Your task to perform on an android device: Add "energizer triple a" to the cart on newegg, then select checkout. Image 0: 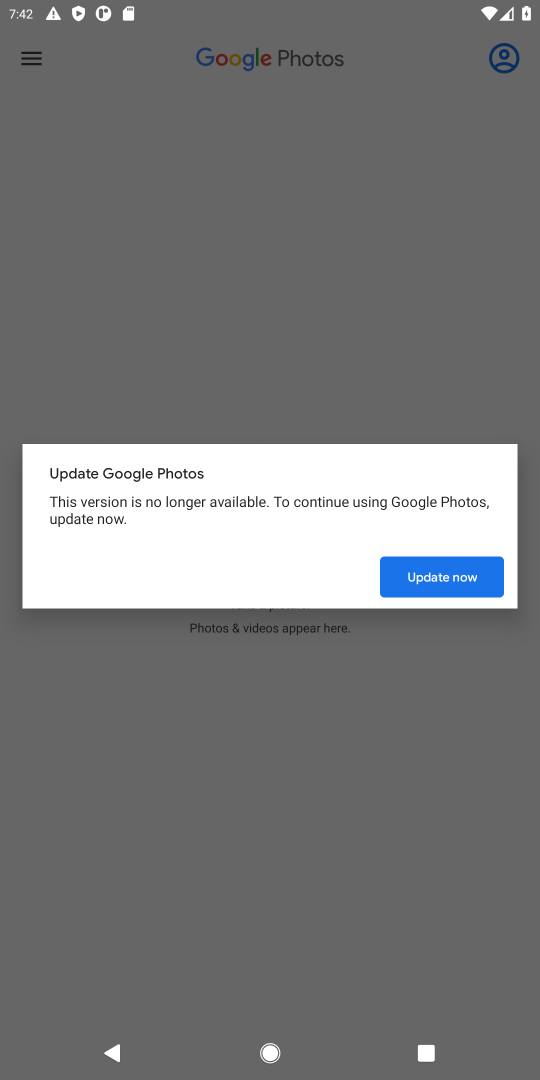
Step 0: press home button
Your task to perform on an android device: Add "energizer triple a" to the cart on newegg, then select checkout. Image 1: 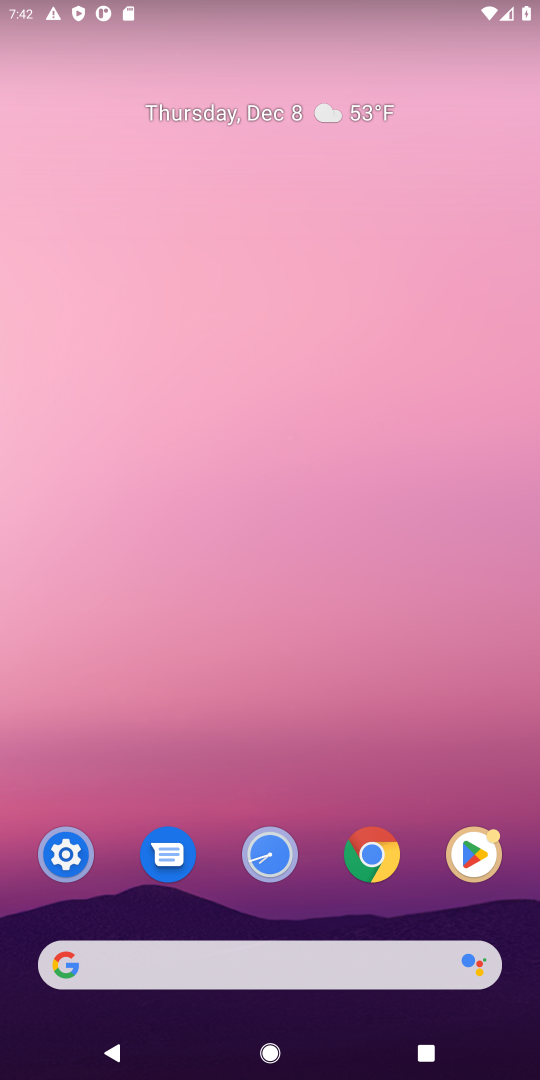
Step 1: drag from (272, 274) to (287, 186)
Your task to perform on an android device: Add "energizer triple a" to the cart on newegg, then select checkout. Image 2: 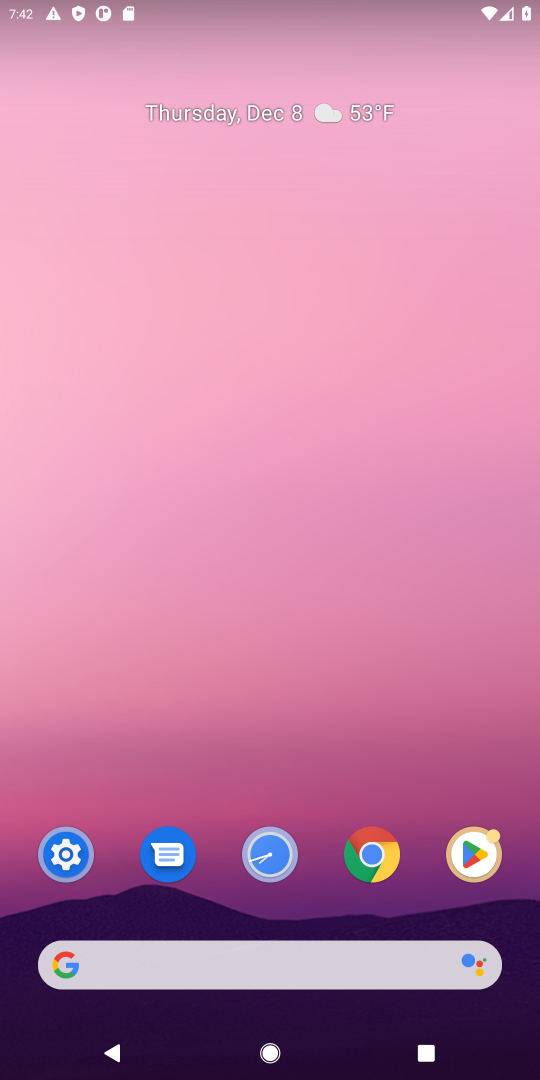
Step 2: drag from (271, 942) to (318, 215)
Your task to perform on an android device: Add "energizer triple a" to the cart on newegg, then select checkout. Image 3: 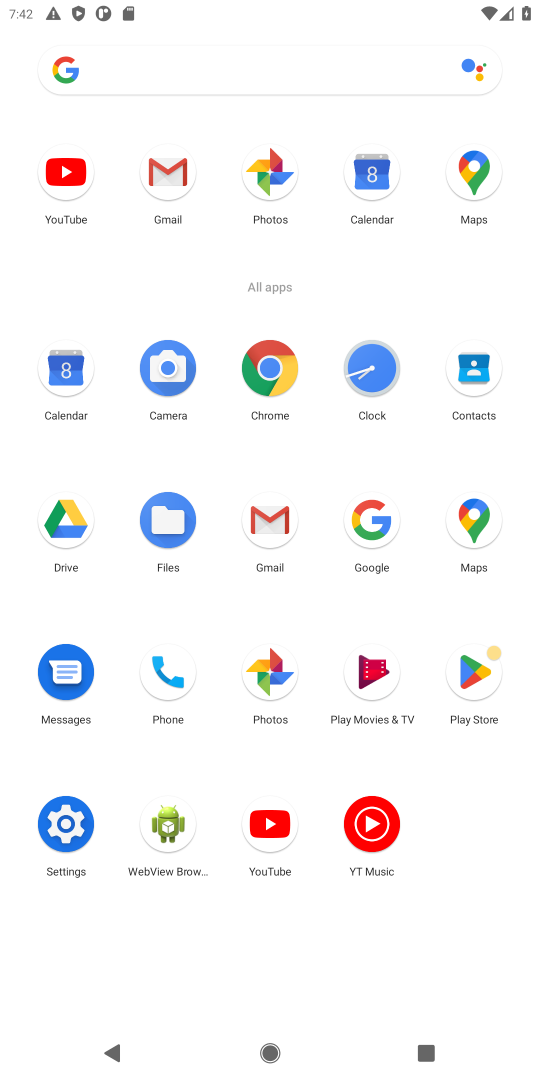
Step 3: click (366, 525)
Your task to perform on an android device: Add "energizer triple a" to the cart on newegg, then select checkout. Image 4: 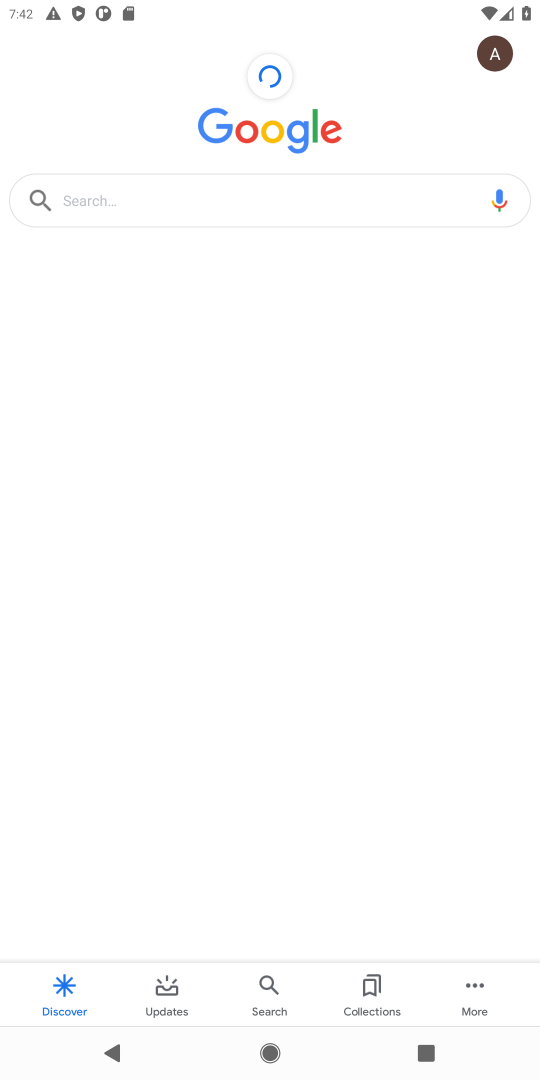
Step 4: click (149, 203)
Your task to perform on an android device: Add "energizer triple a" to the cart on newegg, then select checkout. Image 5: 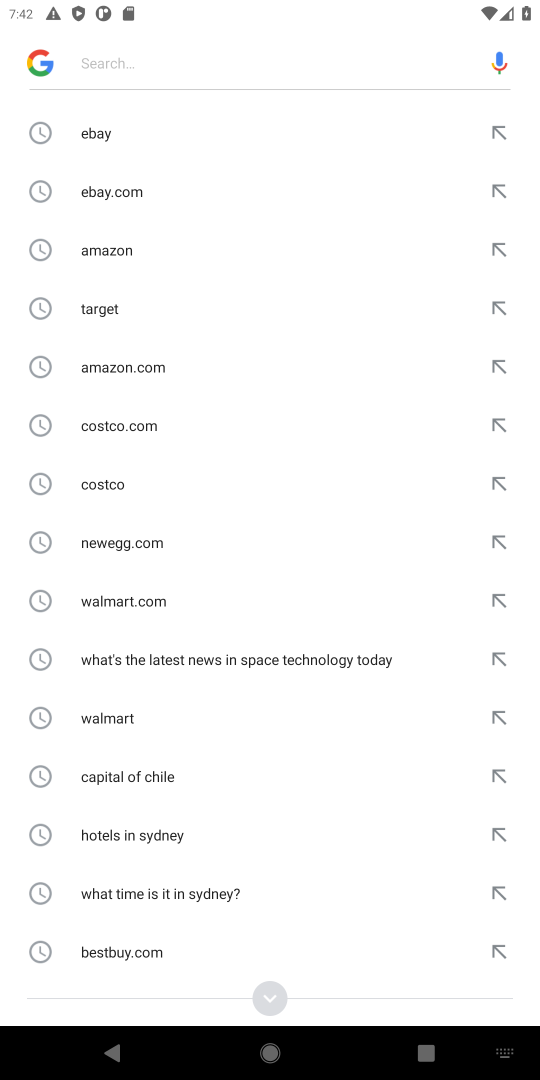
Step 5: click (125, 543)
Your task to perform on an android device: Add "energizer triple a" to the cart on newegg, then select checkout. Image 6: 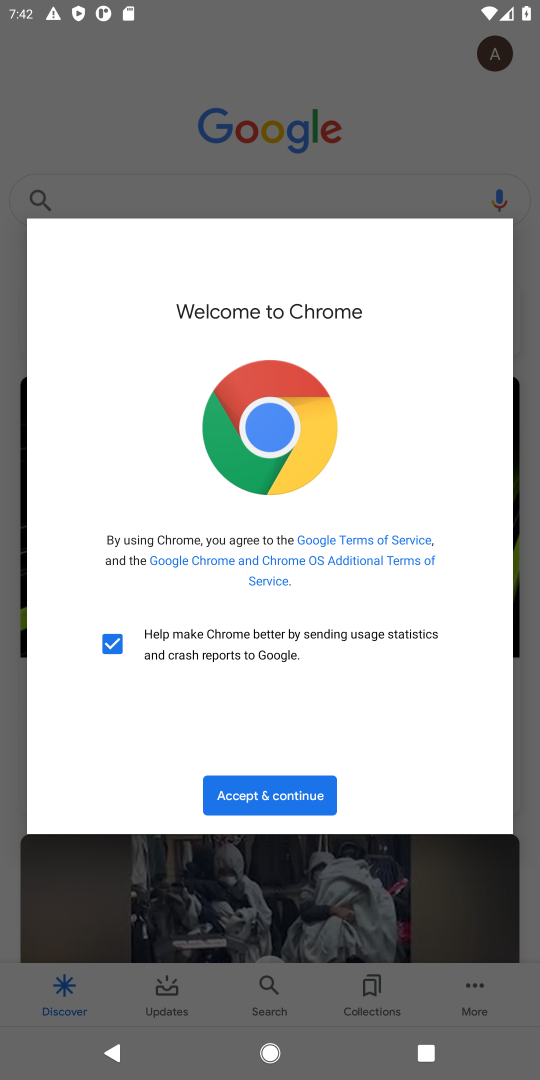
Step 6: click (246, 795)
Your task to perform on an android device: Add "energizer triple a" to the cart on newegg, then select checkout. Image 7: 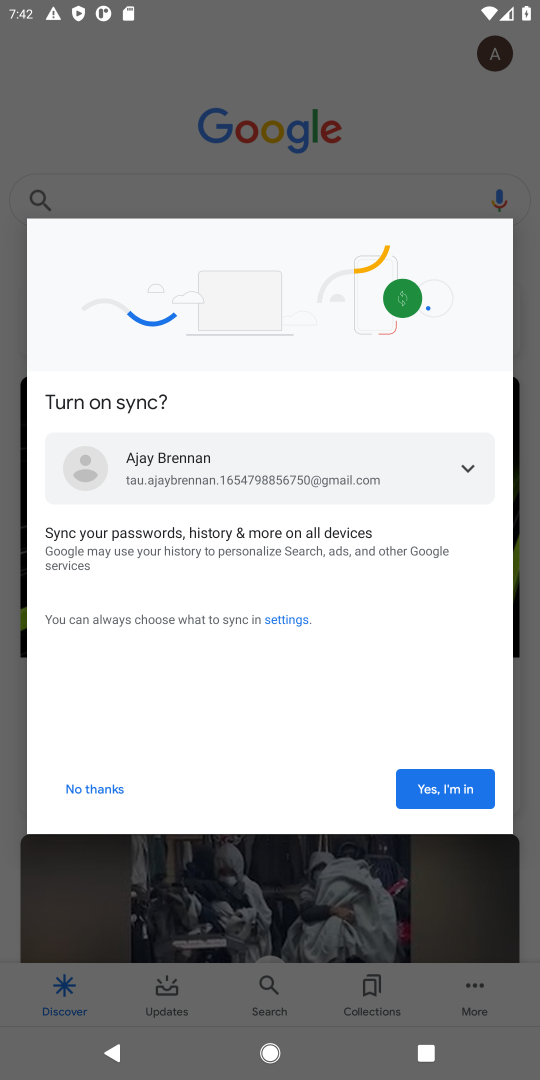
Step 7: click (433, 789)
Your task to perform on an android device: Add "energizer triple a" to the cart on newegg, then select checkout. Image 8: 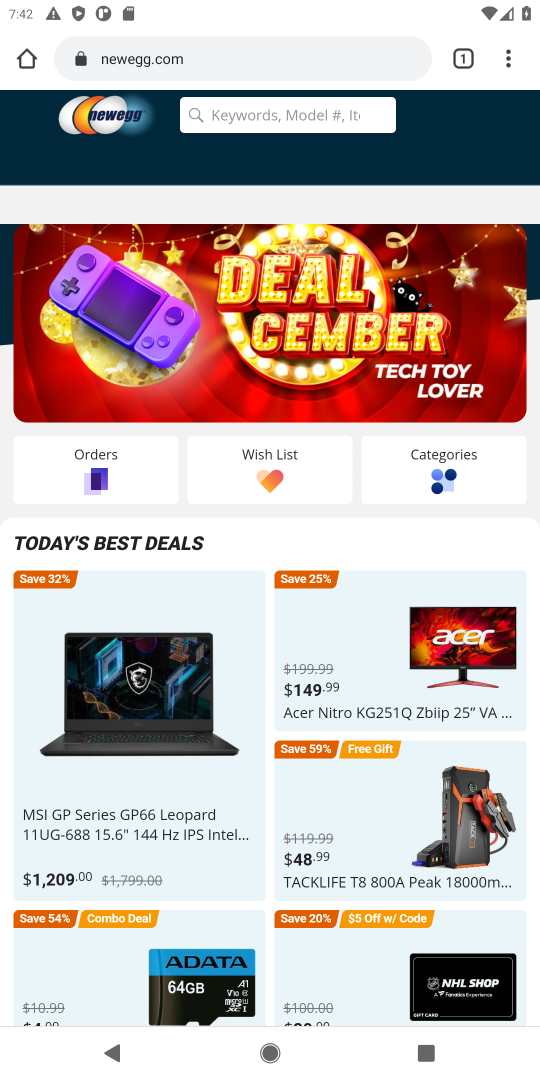
Step 8: click (218, 112)
Your task to perform on an android device: Add "energizer triple a" to the cart on newegg, then select checkout. Image 9: 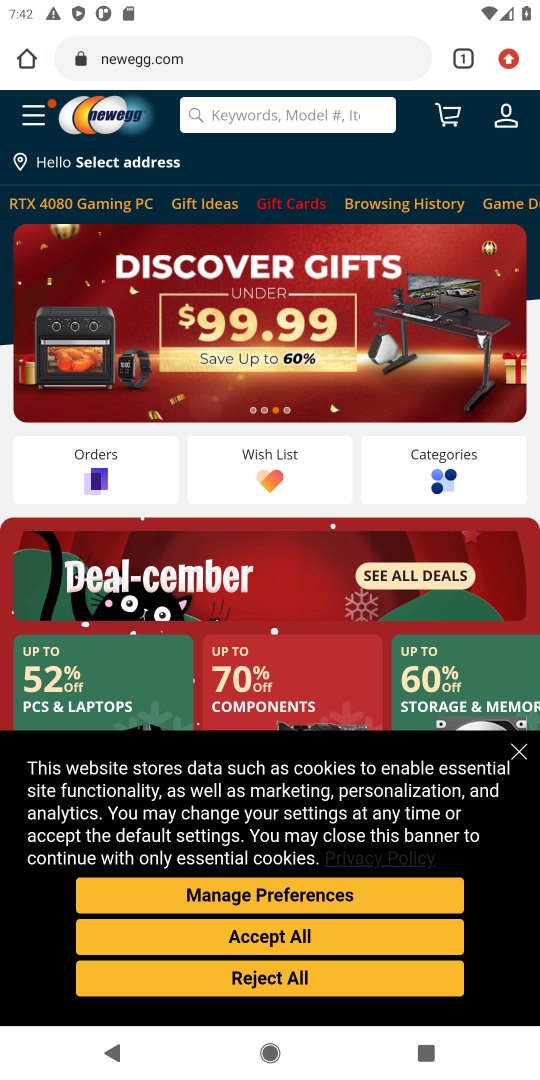
Step 9: click (302, 111)
Your task to perform on an android device: Add "energizer triple a" to the cart on newegg, then select checkout. Image 10: 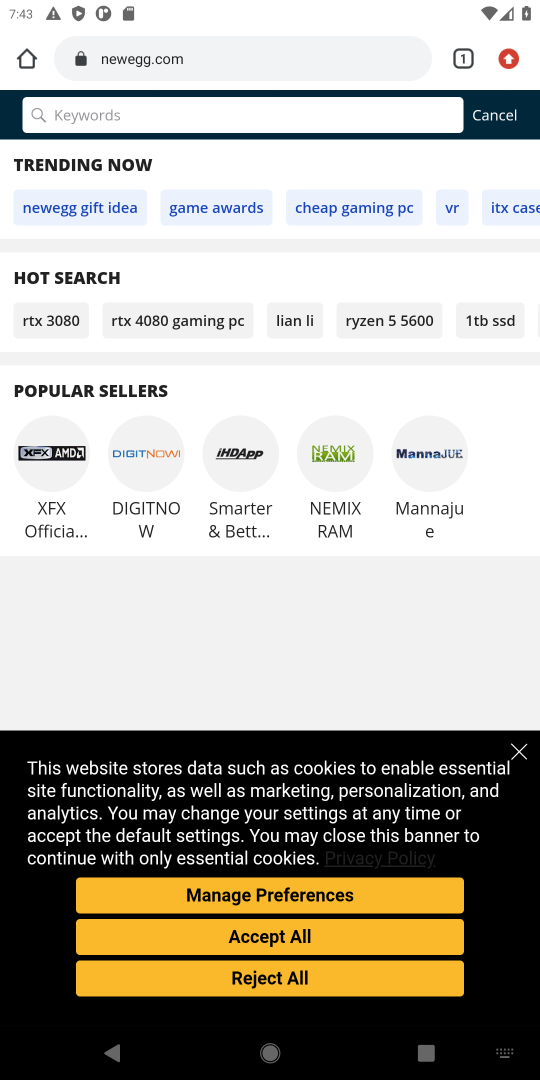
Step 10: type "energizer triple a"
Your task to perform on an android device: Add "energizer triple a" to the cart on newegg, then select checkout. Image 11: 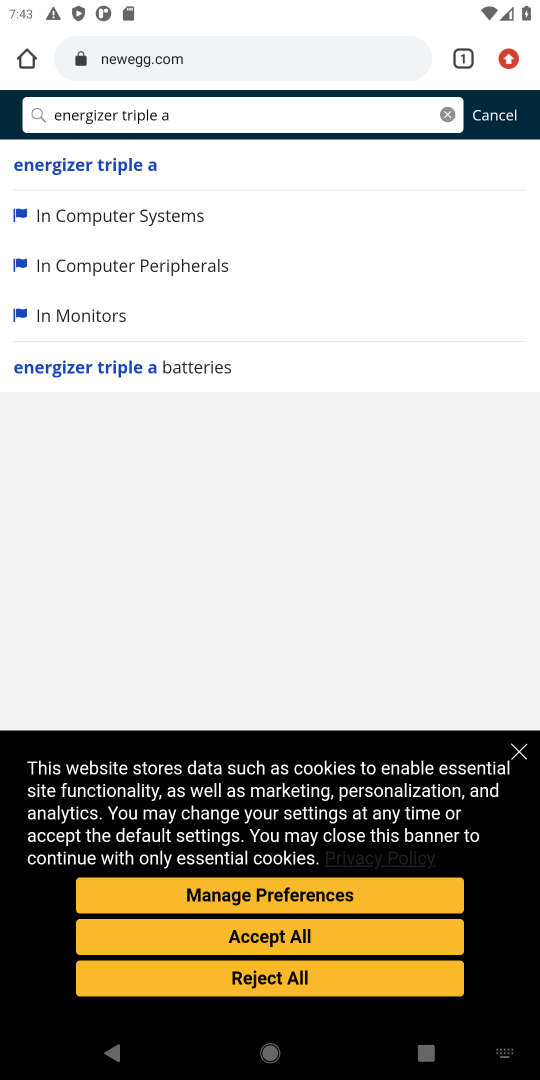
Step 11: click (128, 169)
Your task to perform on an android device: Add "energizer triple a" to the cart on newegg, then select checkout. Image 12: 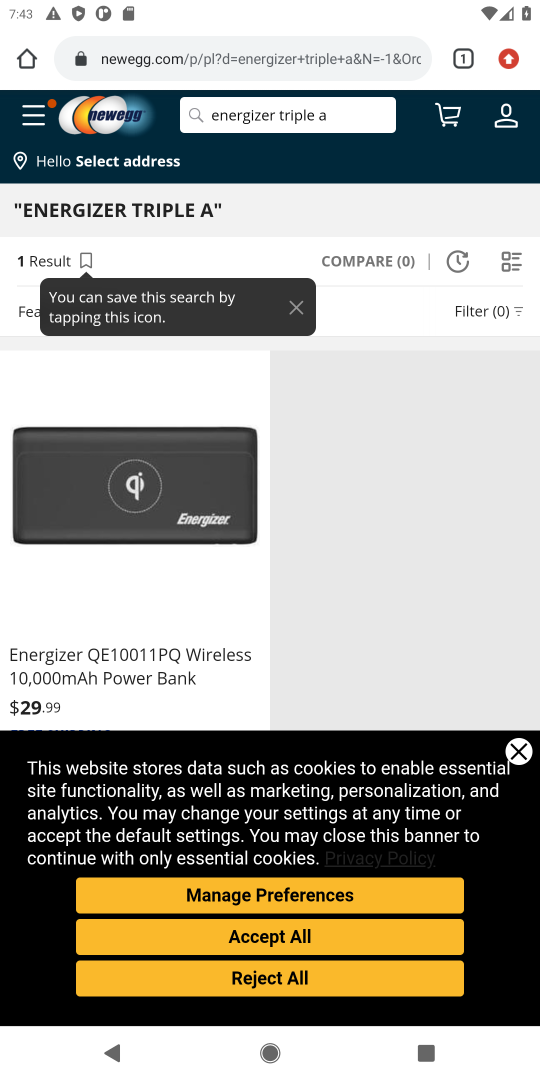
Step 12: click (517, 755)
Your task to perform on an android device: Add "energizer triple a" to the cart on newegg, then select checkout. Image 13: 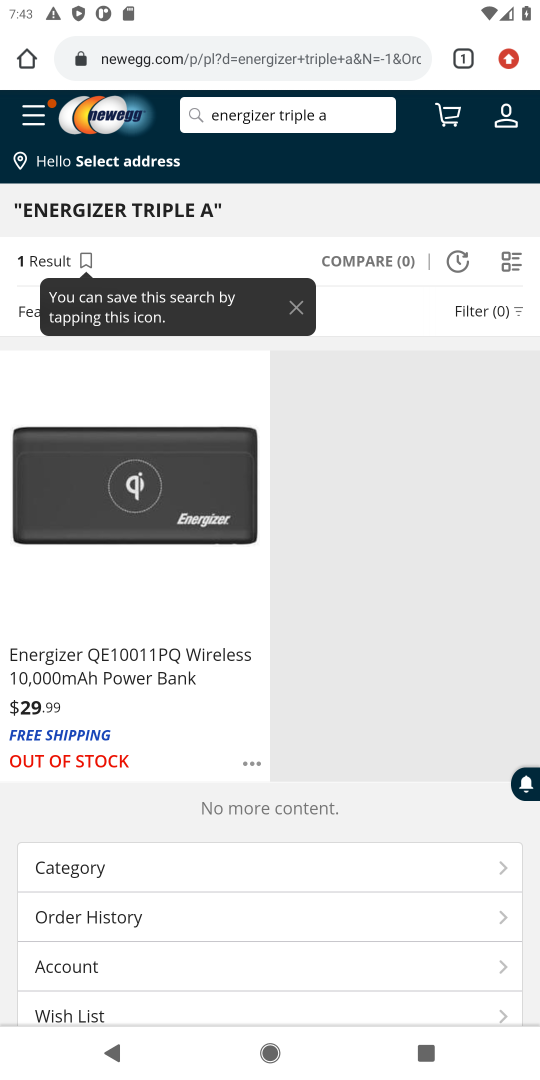
Step 13: task complete